Your task to perform on an android device: open app "LinkedIn" Image 0: 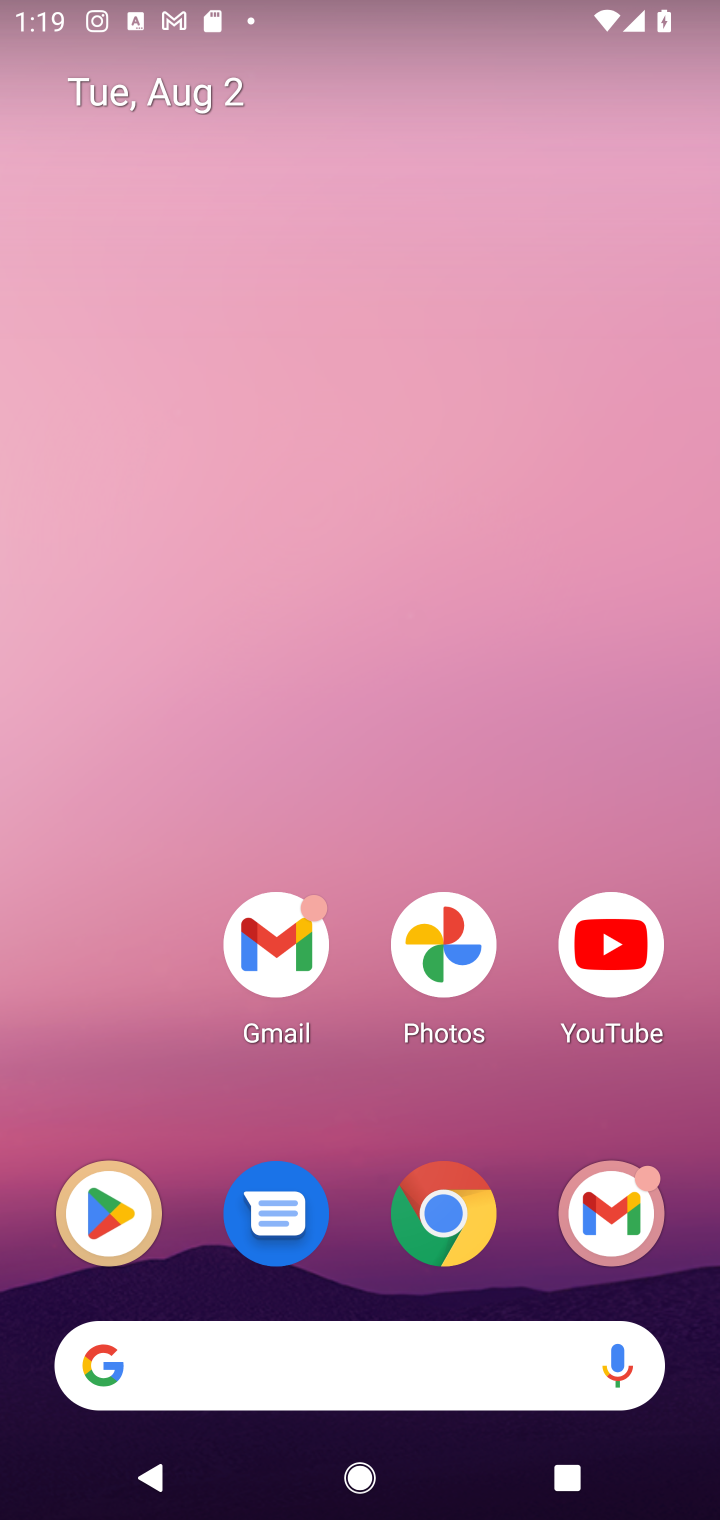
Step 0: click (75, 1222)
Your task to perform on an android device: open app "LinkedIn" Image 1: 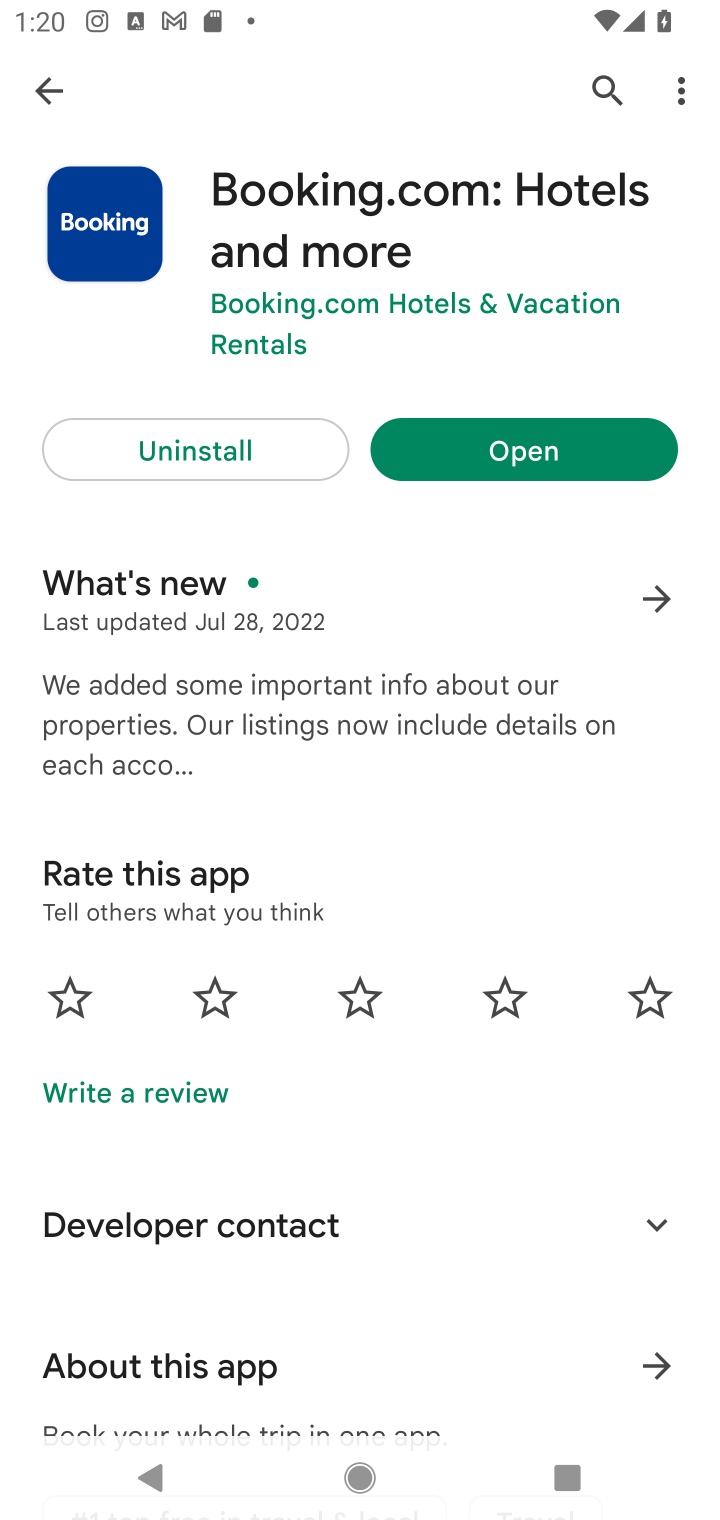
Step 1: click (43, 79)
Your task to perform on an android device: open app "LinkedIn" Image 2: 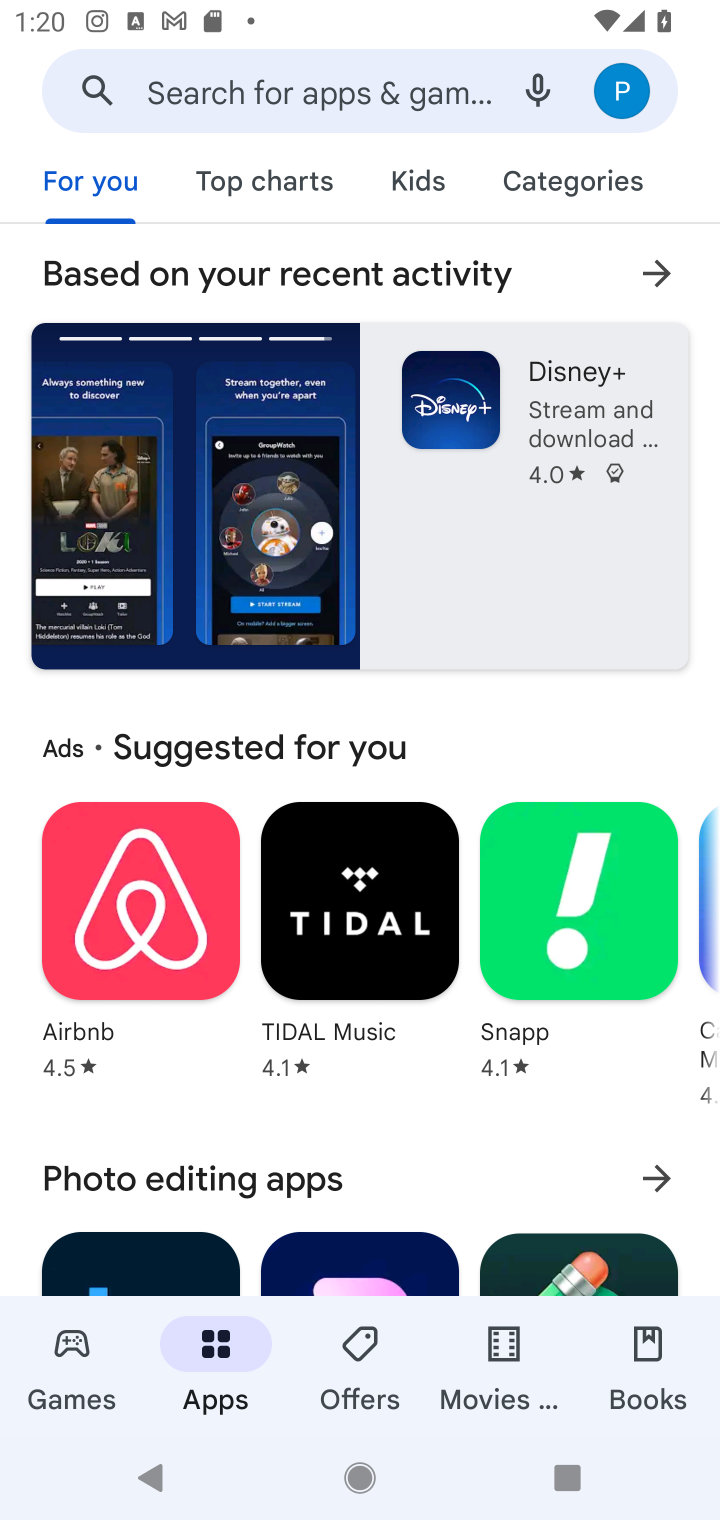
Step 2: click (368, 79)
Your task to perform on an android device: open app "LinkedIn" Image 3: 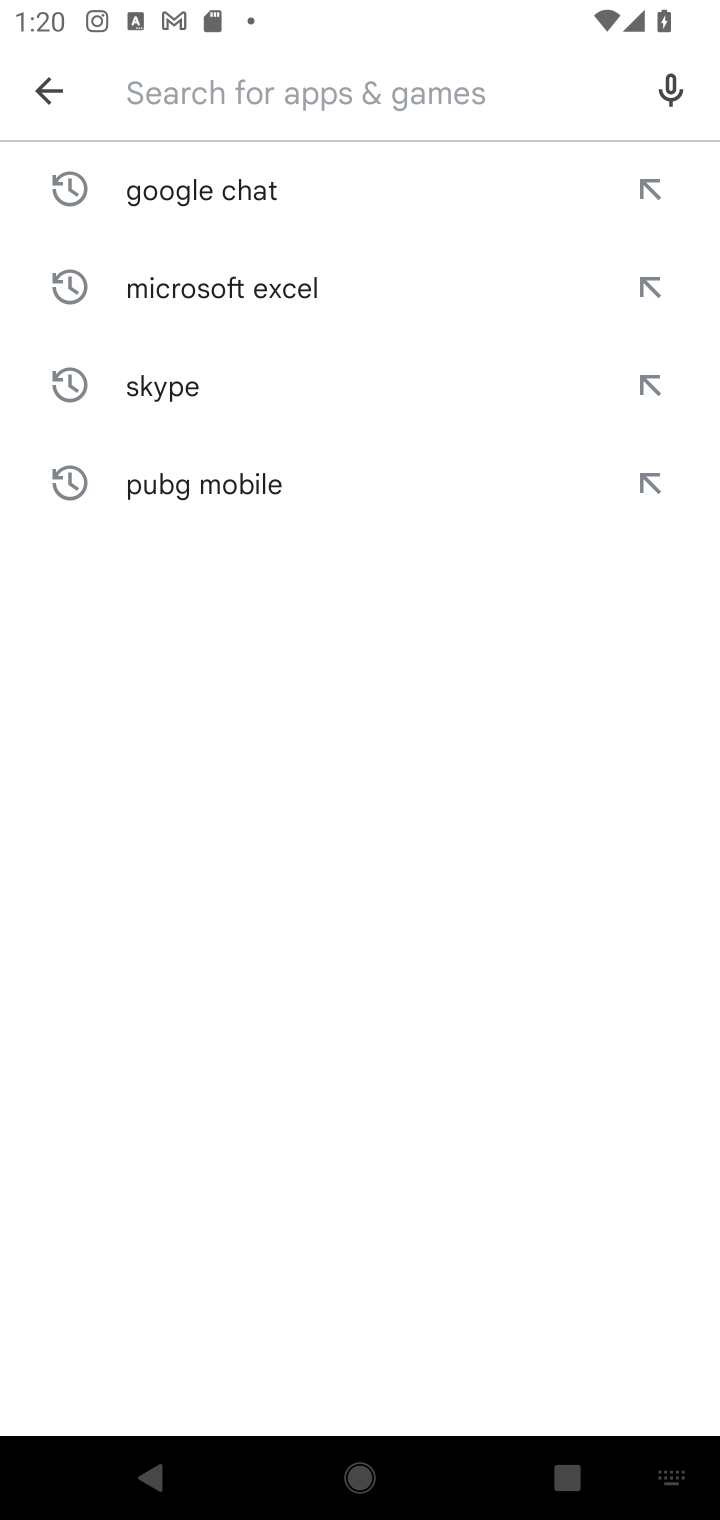
Step 3: type "LinkedIn"
Your task to perform on an android device: open app "LinkedIn" Image 4: 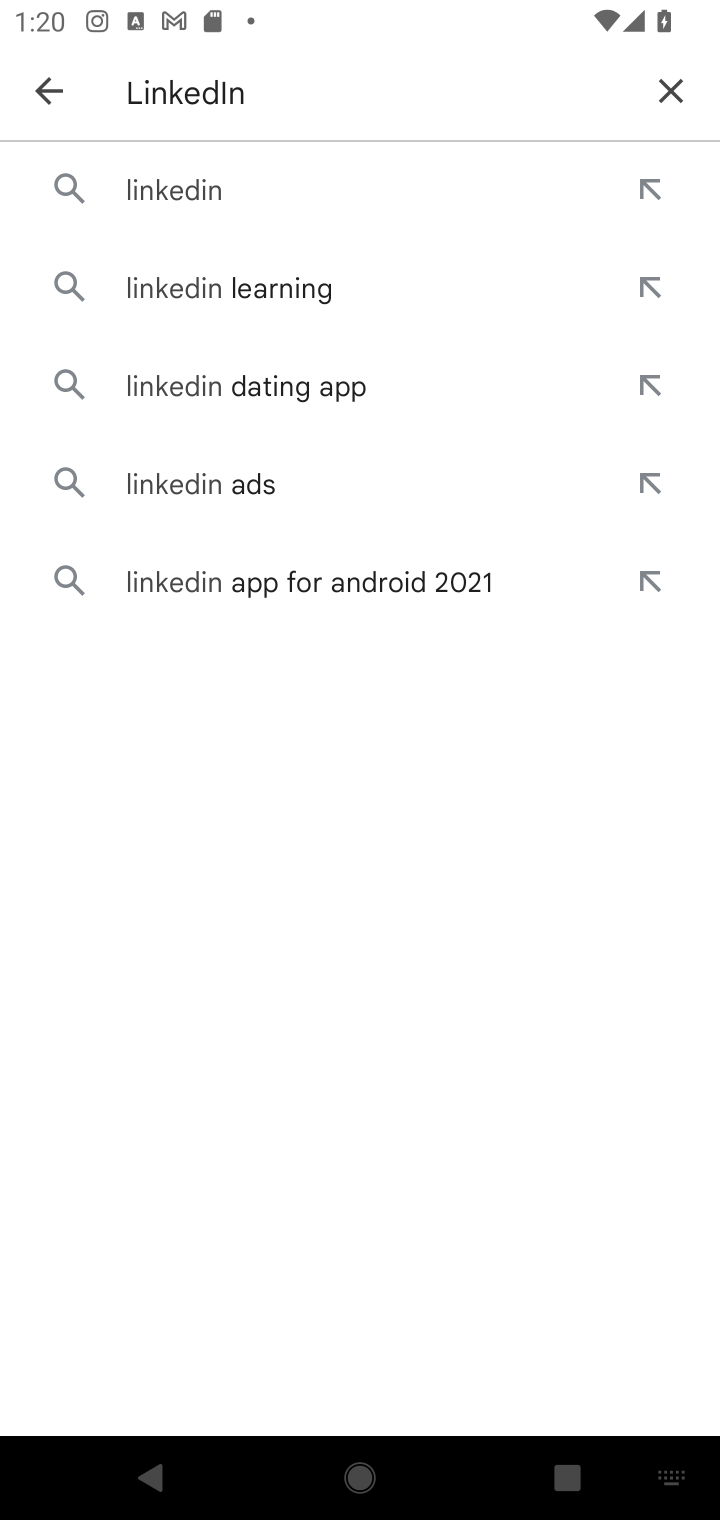
Step 4: click (204, 188)
Your task to perform on an android device: open app "LinkedIn" Image 5: 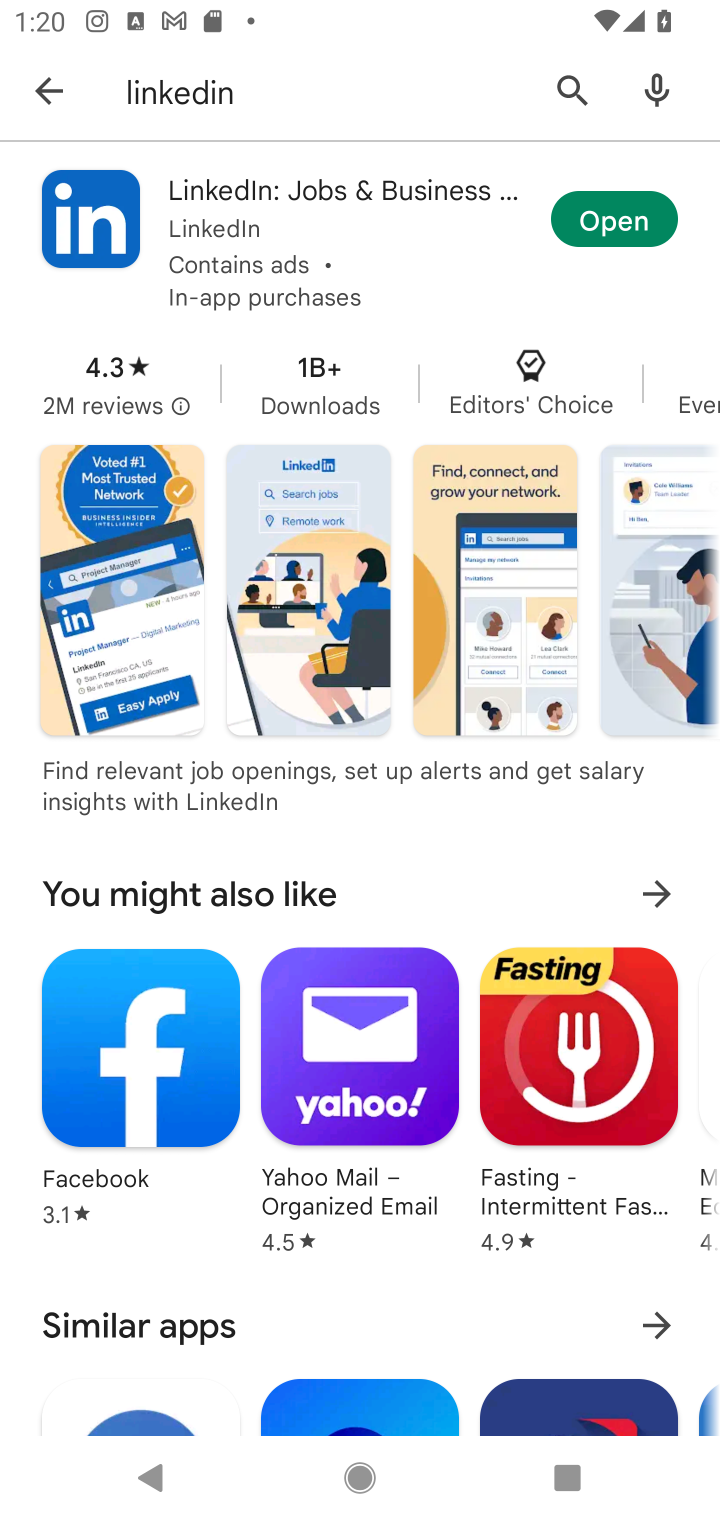
Step 5: click (568, 215)
Your task to perform on an android device: open app "LinkedIn" Image 6: 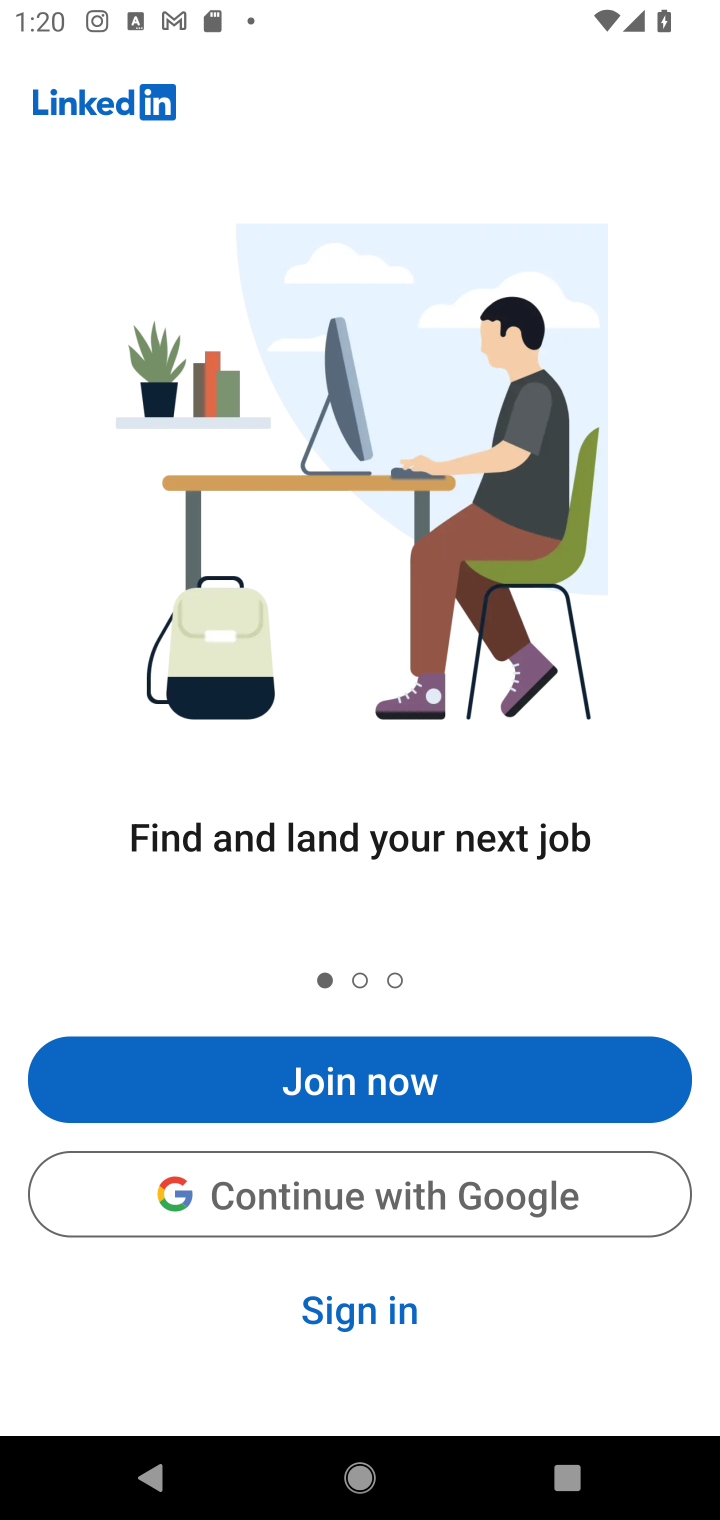
Step 6: task complete